Your task to perform on an android device: Go to settings Image 0: 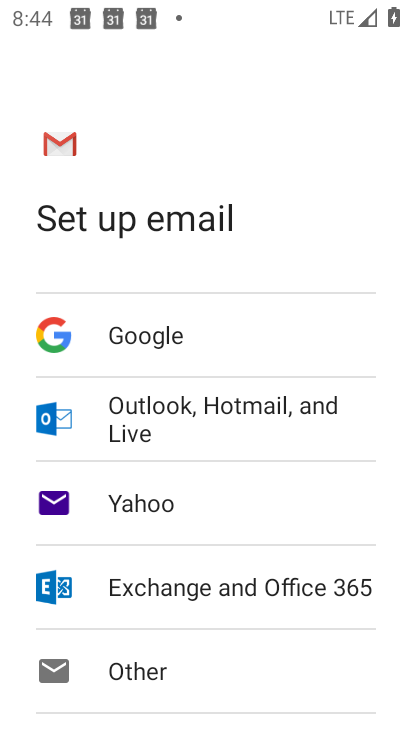
Step 0: press home button
Your task to perform on an android device: Go to settings Image 1: 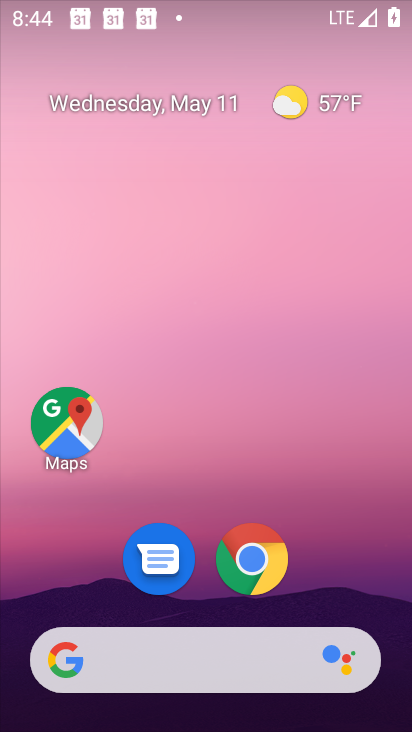
Step 1: drag from (370, 591) to (356, 0)
Your task to perform on an android device: Go to settings Image 2: 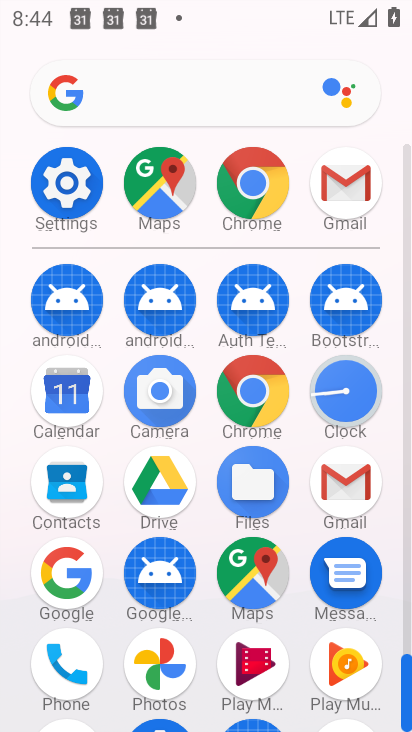
Step 2: click (62, 191)
Your task to perform on an android device: Go to settings Image 3: 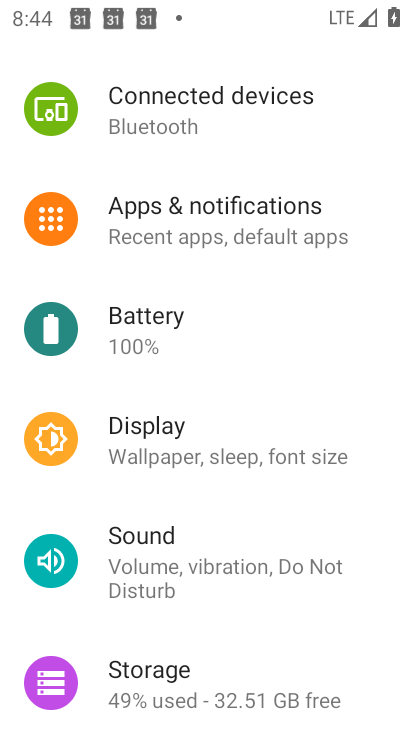
Step 3: task complete